Your task to perform on an android device: Open Youtube and go to "Your channel" Image 0: 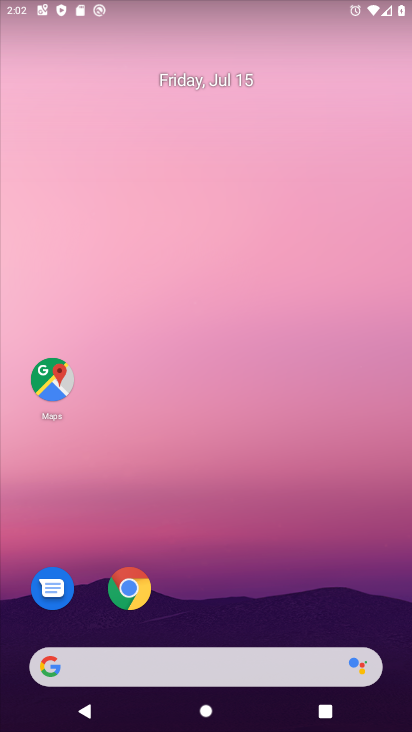
Step 0: drag from (221, 669) to (298, 82)
Your task to perform on an android device: Open Youtube and go to "Your channel" Image 1: 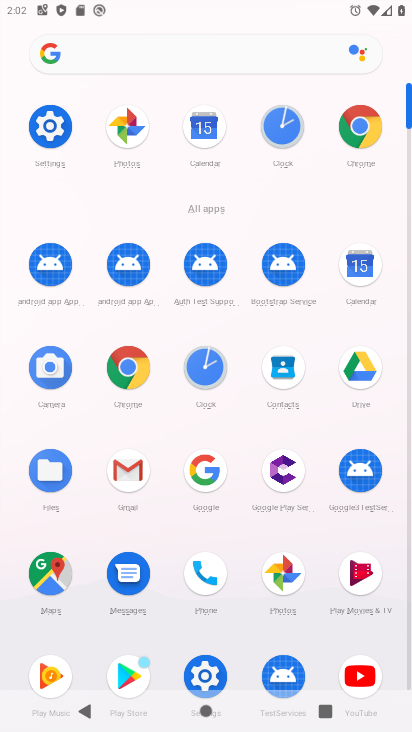
Step 1: click (361, 676)
Your task to perform on an android device: Open Youtube and go to "Your channel" Image 2: 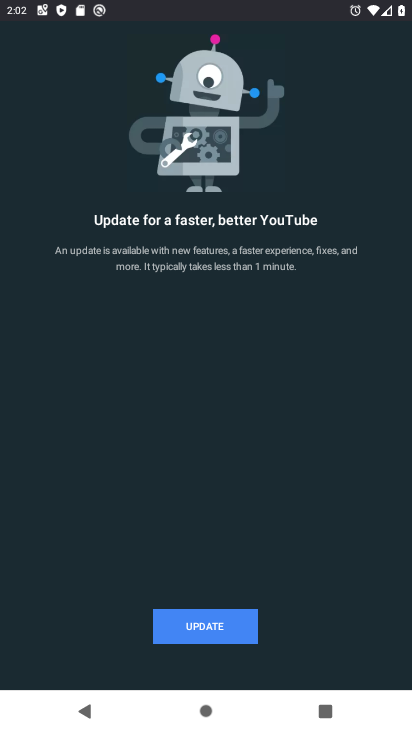
Step 2: click (215, 626)
Your task to perform on an android device: Open Youtube and go to "Your channel" Image 3: 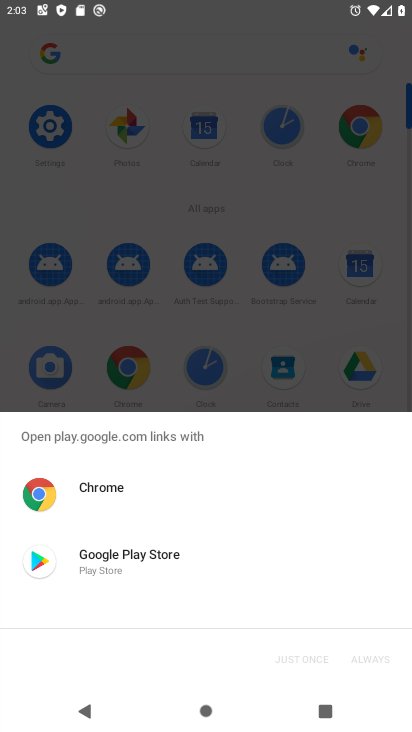
Step 3: click (144, 555)
Your task to perform on an android device: Open Youtube and go to "Your channel" Image 4: 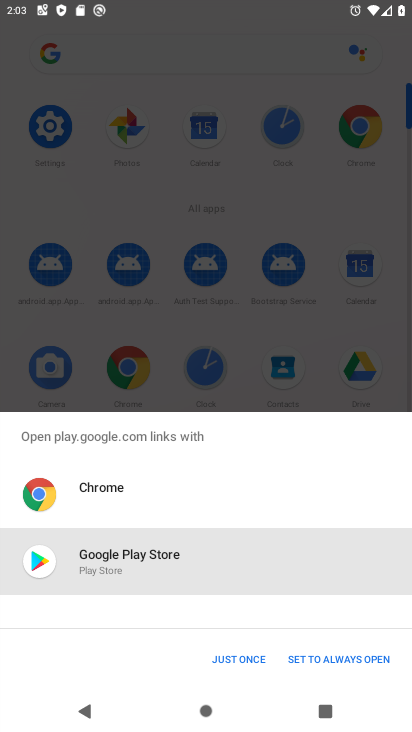
Step 4: click (144, 555)
Your task to perform on an android device: Open Youtube and go to "Your channel" Image 5: 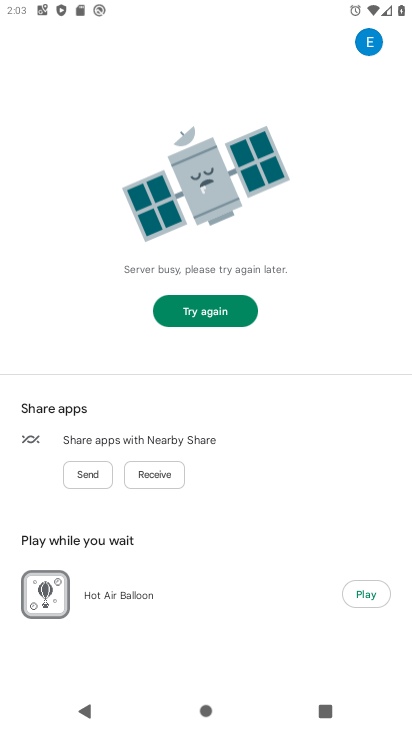
Step 5: press back button
Your task to perform on an android device: Open Youtube and go to "Your channel" Image 6: 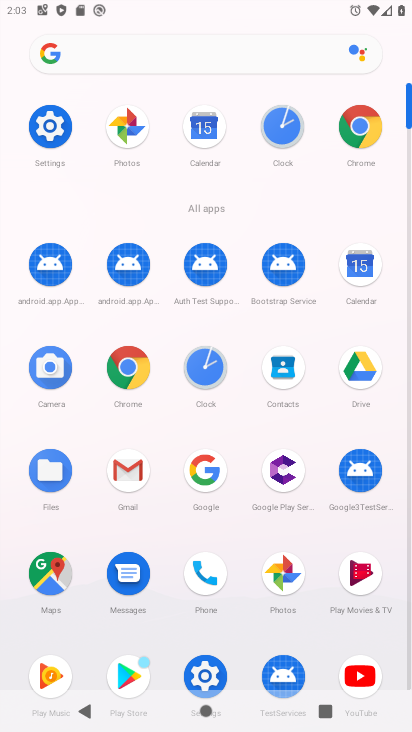
Step 6: click (356, 671)
Your task to perform on an android device: Open Youtube and go to "Your channel" Image 7: 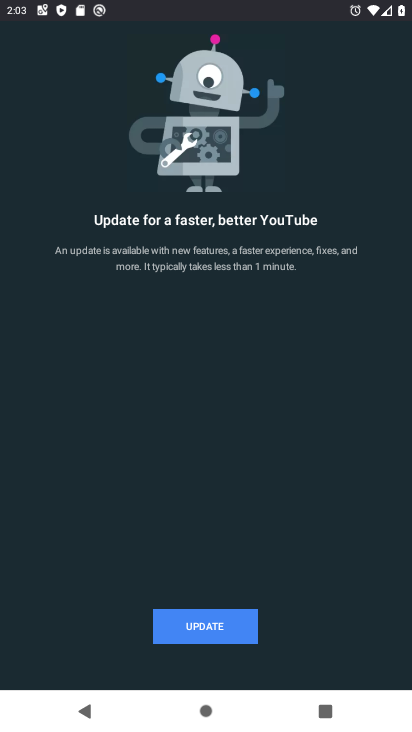
Step 7: click (217, 632)
Your task to perform on an android device: Open Youtube and go to "Your channel" Image 8: 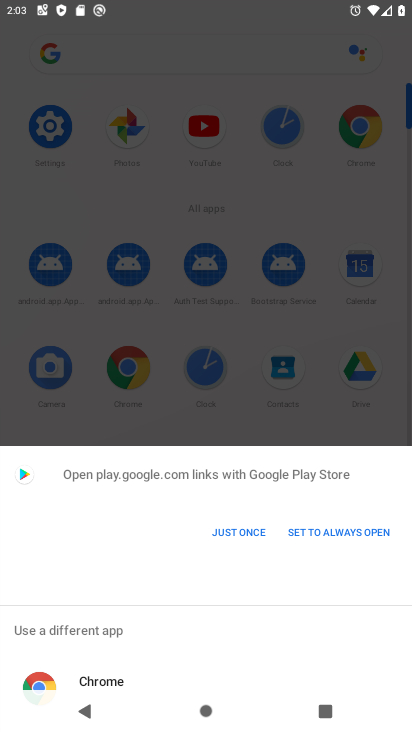
Step 8: click (248, 532)
Your task to perform on an android device: Open Youtube and go to "Your channel" Image 9: 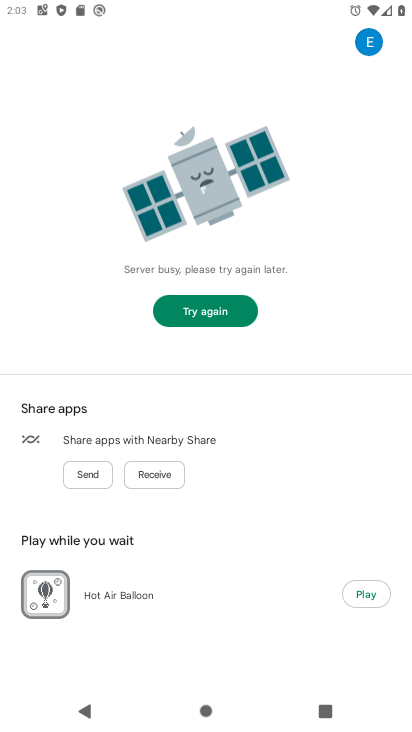
Step 9: click (202, 300)
Your task to perform on an android device: Open Youtube and go to "Your channel" Image 10: 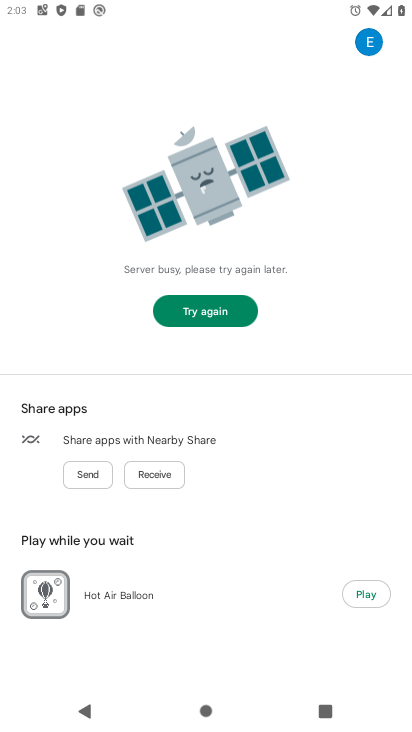
Step 10: task complete